Your task to perform on an android device: Open the map Image 0: 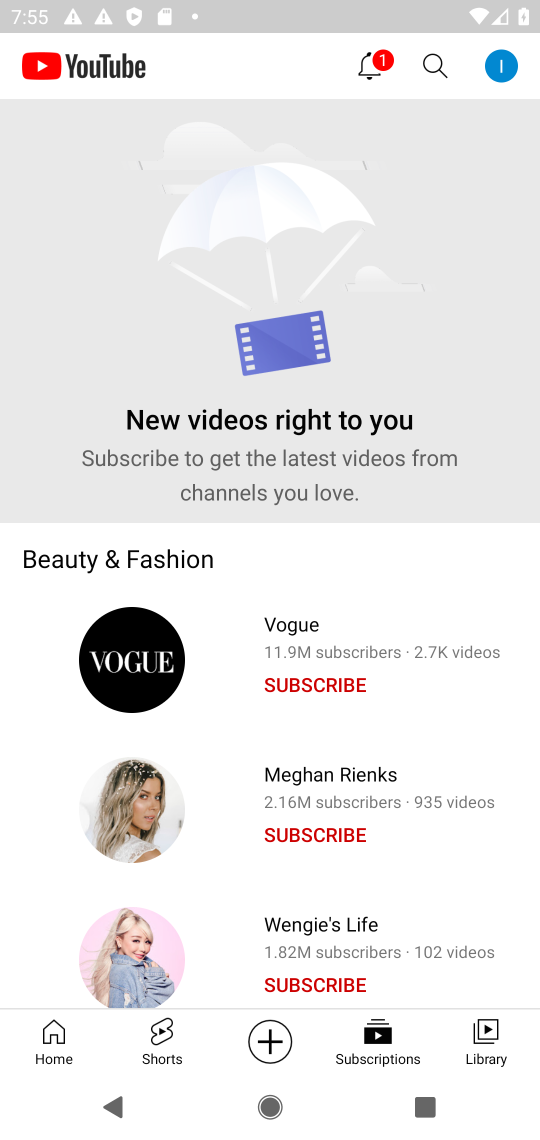
Step 0: press home button
Your task to perform on an android device: Open the map Image 1: 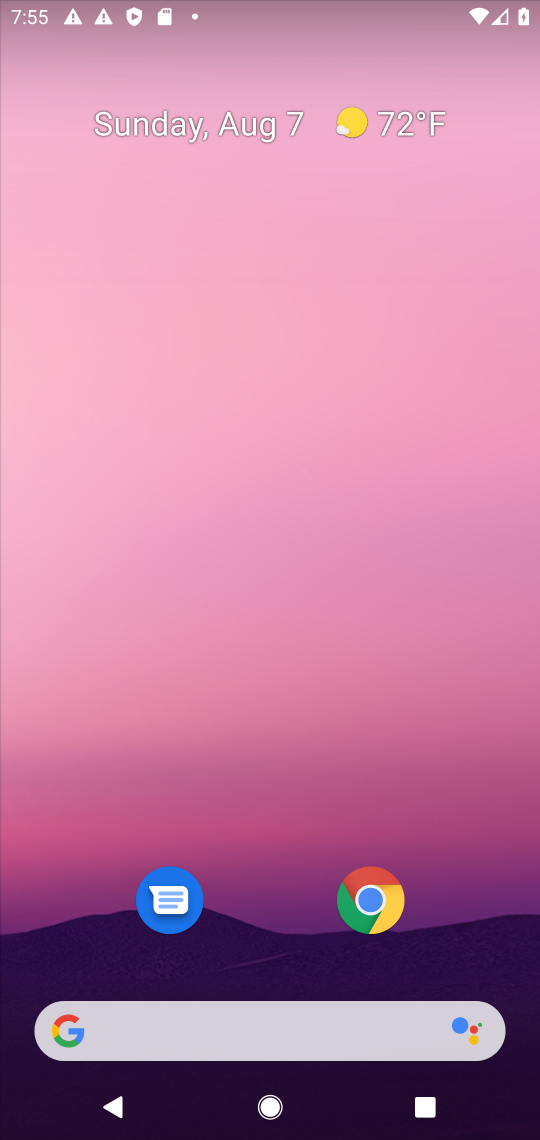
Step 1: drag from (210, 941) to (367, 162)
Your task to perform on an android device: Open the map Image 2: 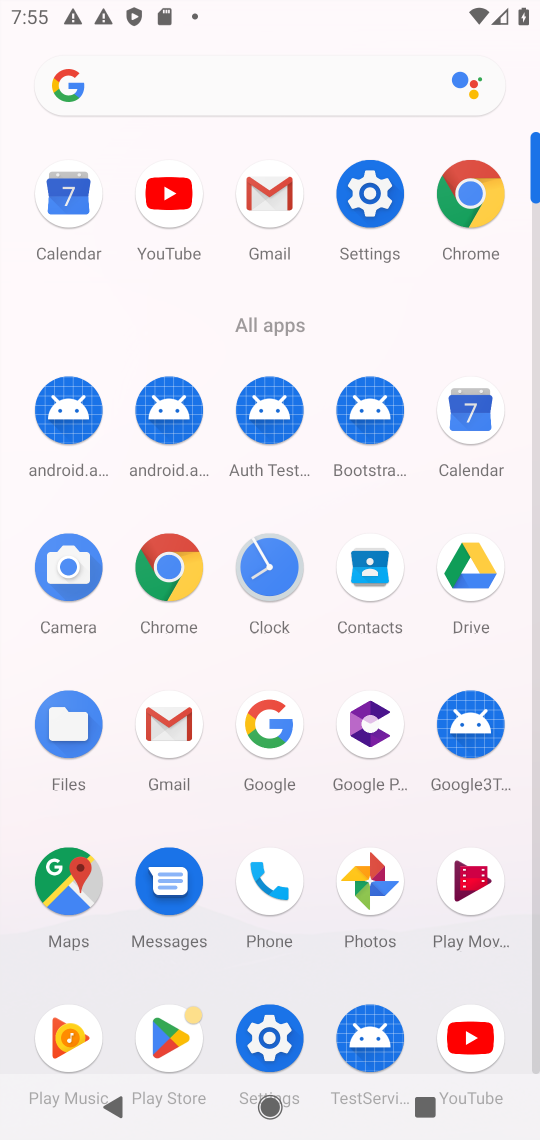
Step 2: click (69, 887)
Your task to perform on an android device: Open the map Image 3: 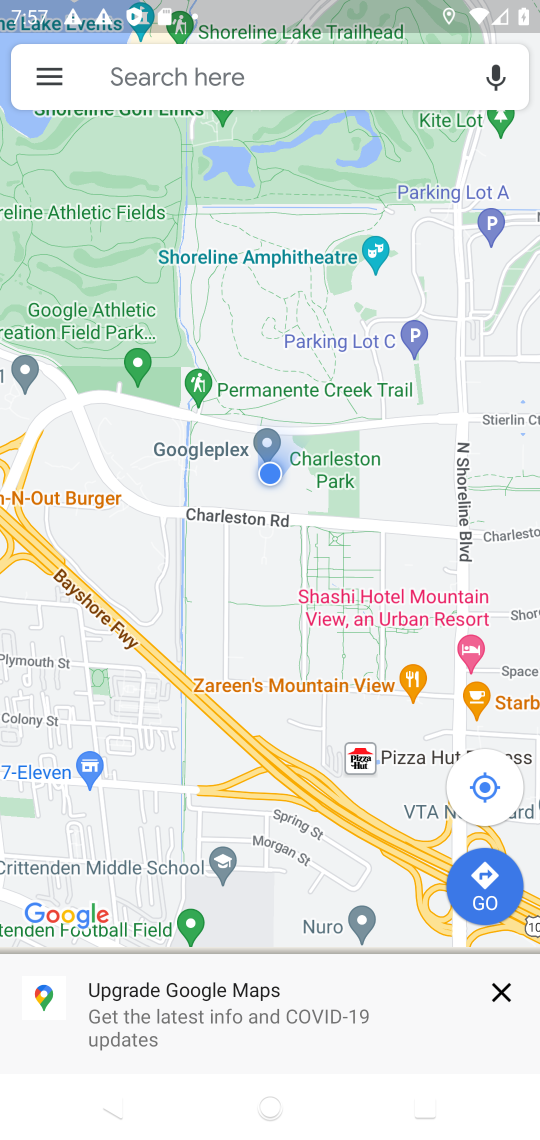
Step 3: task complete